Your task to perform on an android device: Open Youtube and go to the subscriptions tab Image 0: 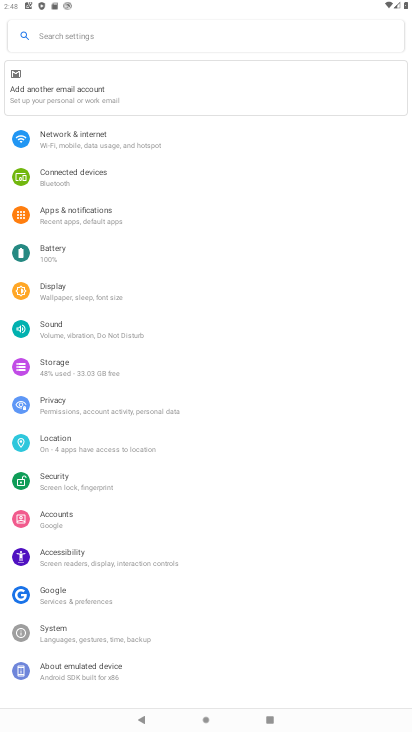
Step 0: press home button
Your task to perform on an android device: Open Youtube and go to the subscriptions tab Image 1: 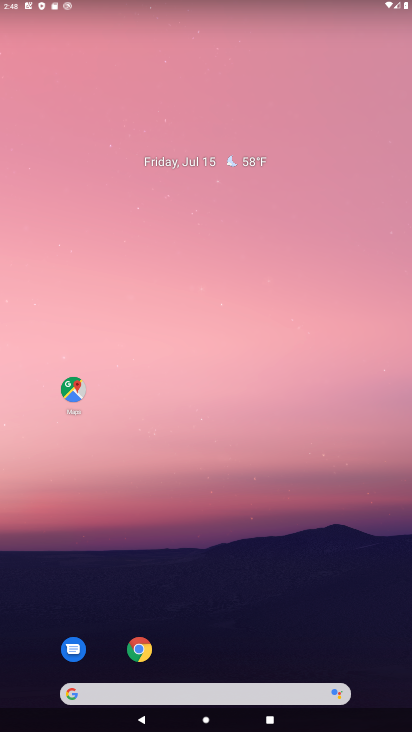
Step 1: drag from (239, 701) to (222, 133)
Your task to perform on an android device: Open Youtube and go to the subscriptions tab Image 2: 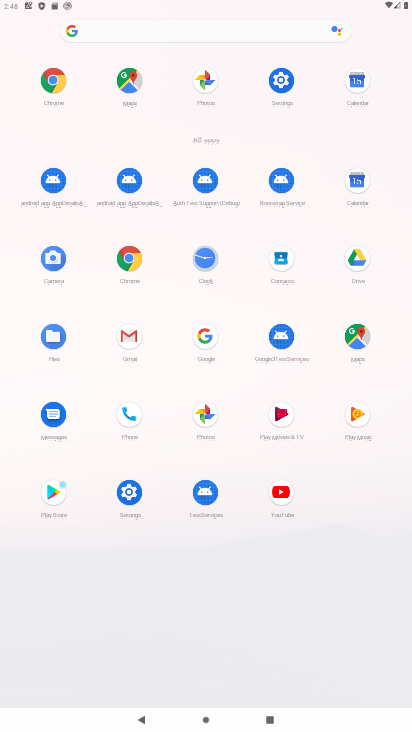
Step 2: click (284, 495)
Your task to perform on an android device: Open Youtube and go to the subscriptions tab Image 3: 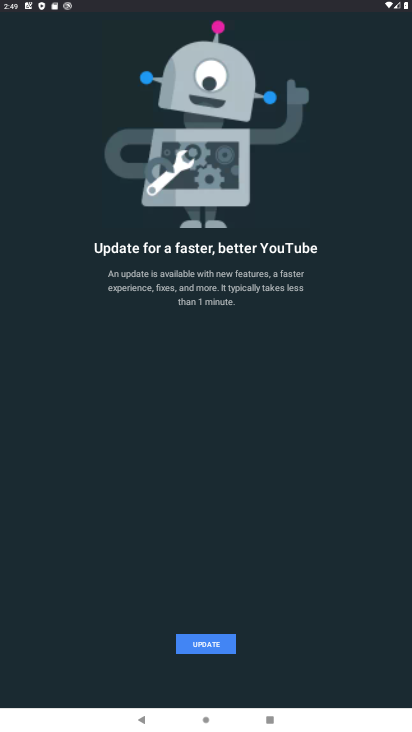
Step 3: task complete